Your task to perform on an android device: open chrome privacy settings Image 0: 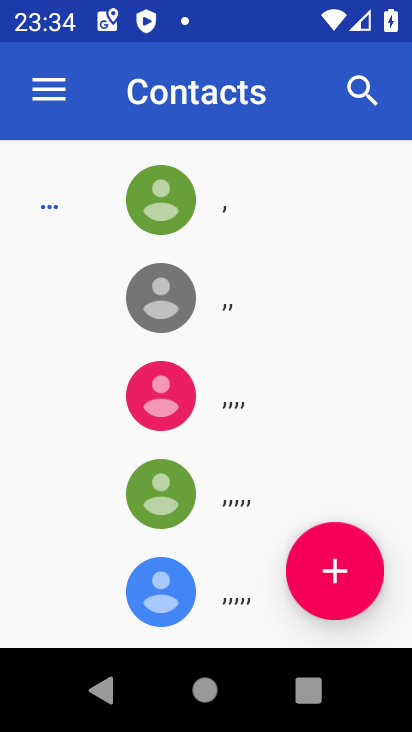
Step 0: press home button
Your task to perform on an android device: open chrome privacy settings Image 1: 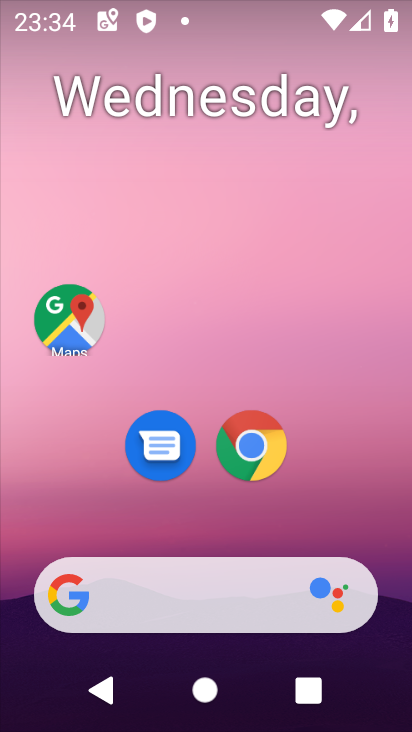
Step 1: click (241, 446)
Your task to perform on an android device: open chrome privacy settings Image 2: 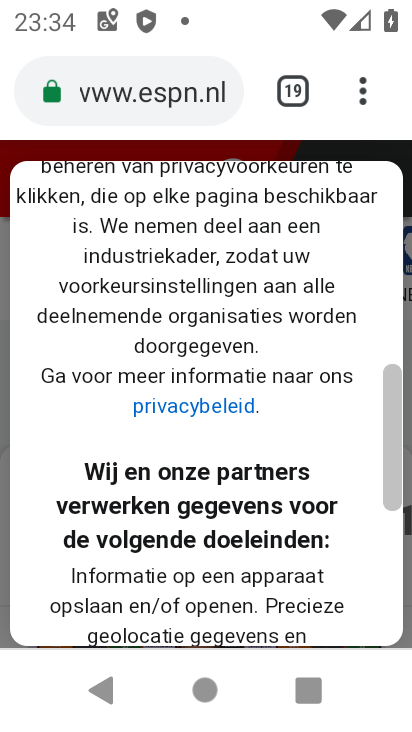
Step 2: click (362, 92)
Your task to perform on an android device: open chrome privacy settings Image 3: 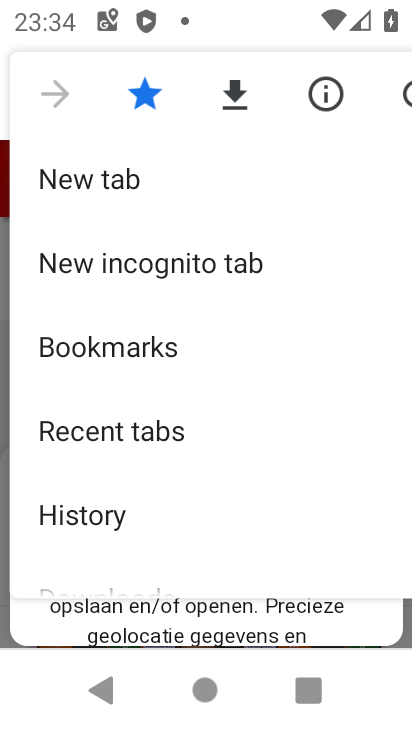
Step 3: drag from (207, 571) to (268, 156)
Your task to perform on an android device: open chrome privacy settings Image 4: 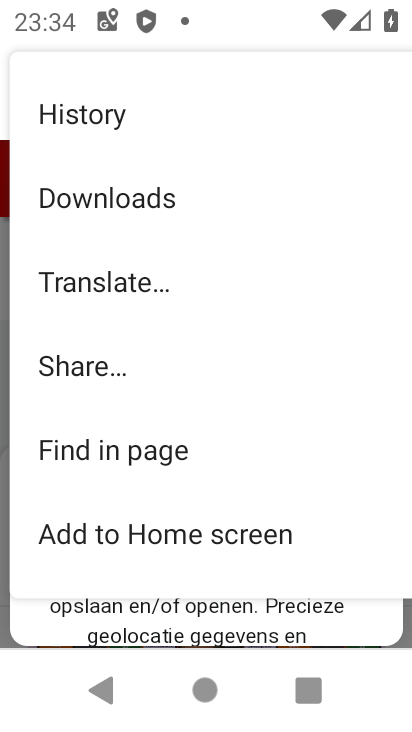
Step 4: drag from (159, 524) to (219, 193)
Your task to perform on an android device: open chrome privacy settings Image 5: 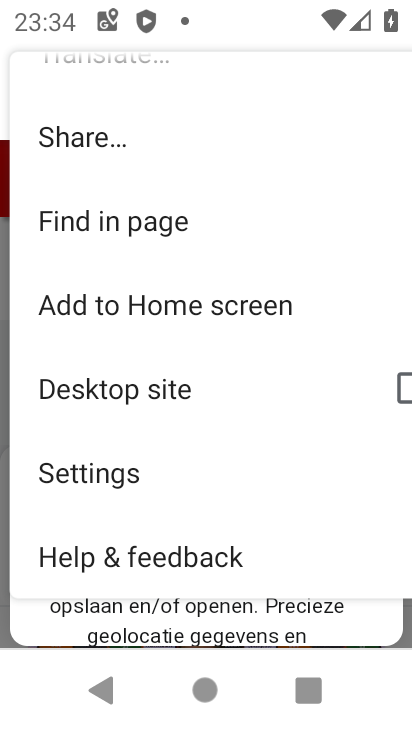
Step 5: click (134, 470)
Your task to perform on an android device: open chrome privacy settings Image 6: 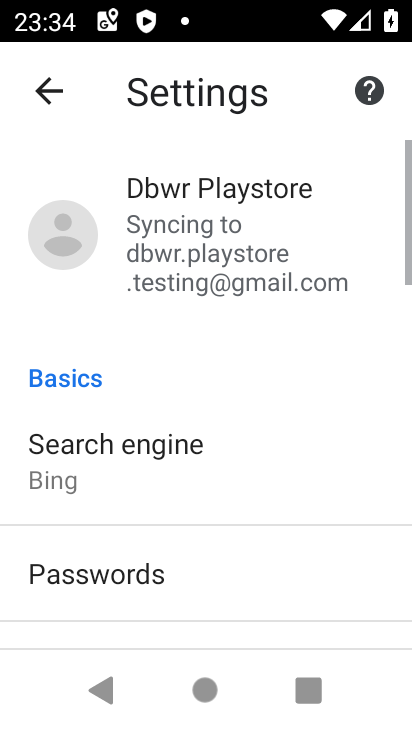
Step 6: drag from (181, 550) to (245, 159)
Your task to perform on an android device: open chrome privacy settings Image 7: 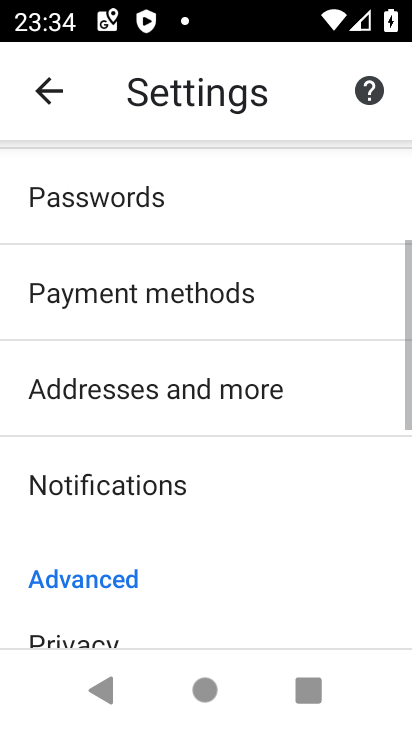
Step 7: drag from (188, 524) to (249, 234)
Your task to perform on an android device: open chrome privacy settings Image 8: 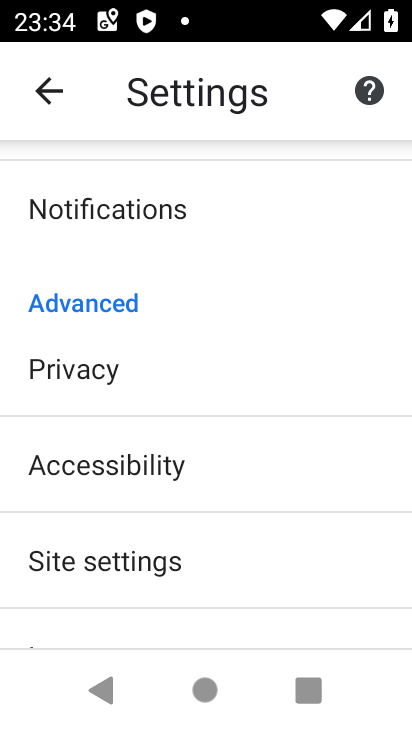
Step 8: click (135, 374)
Your task to perform on an android device: open chrome privacy settings Image 9: 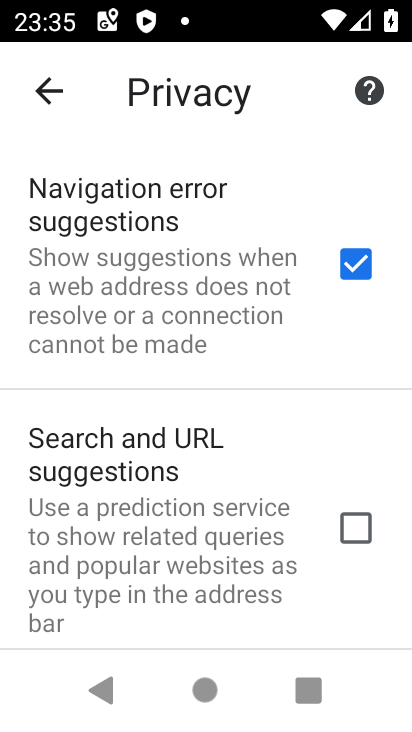
Step 9: task complete